Your task to perform on an android device: change timer sound Image 0: 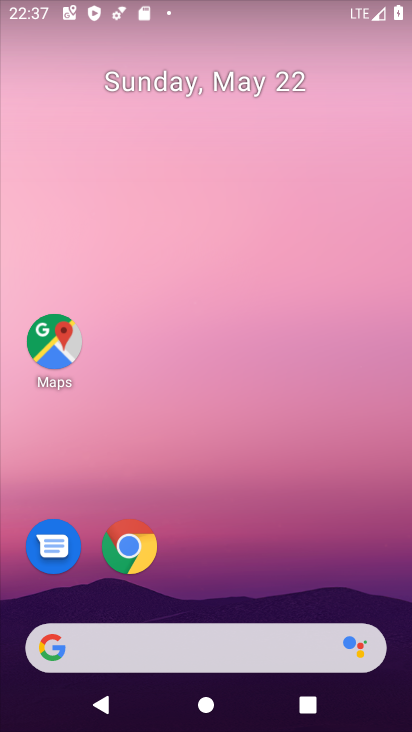
Step 0: drag from (210, 541) to (264, 93)
Your task to perform on an android device: change timer sound Image 1: 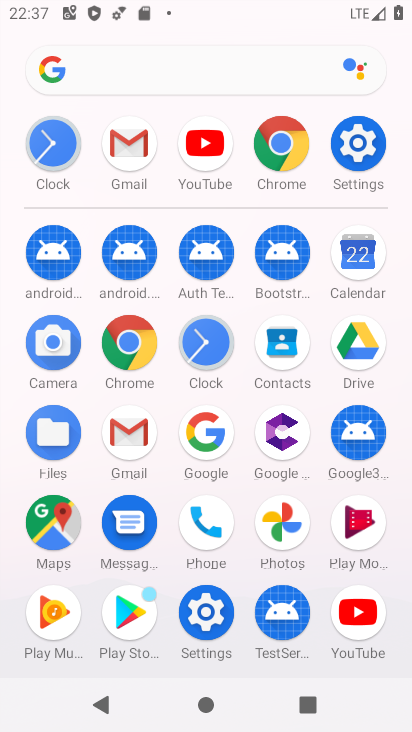
Step 1: click (199, 343)
Your task to perform on an android device: change timer sound Image 2: 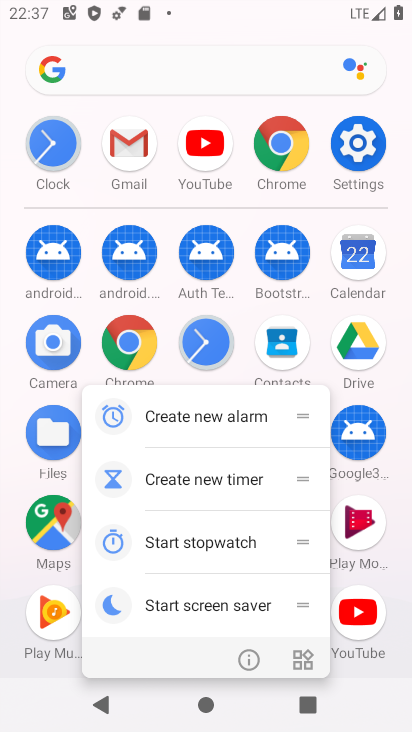
Step 2: drag from (192, 588) to (323, 159)
Your task to perform on an android device: change timer sound Image 3: 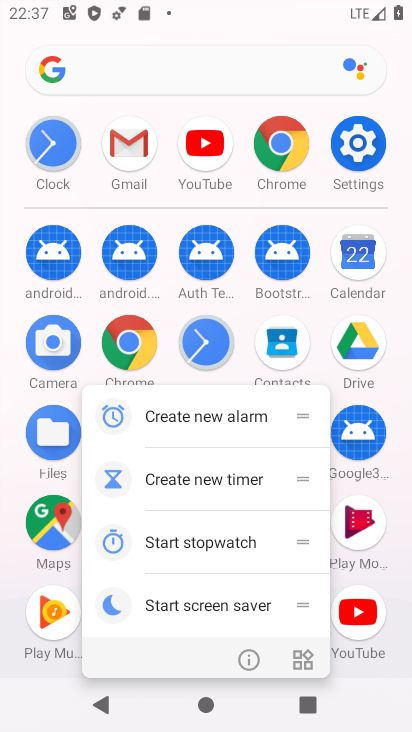
Step 3: click (255, 661)
Your task to perform on an android device: change timer sound Image 4: 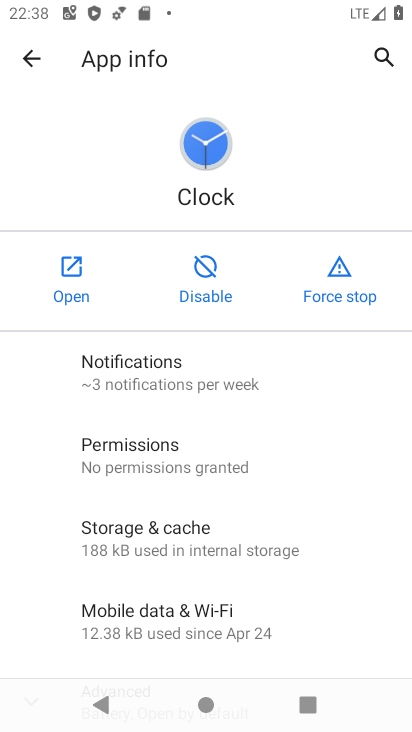
Step 4: click (78, 274)
Your task to perform on an android device: change timer sound Image 5: 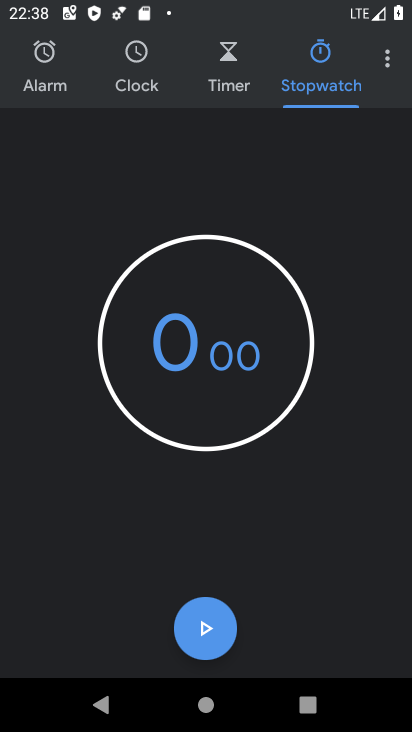
Step 5: click (380, 41)
Your task to perform on an android device: change timer sound Image 6: 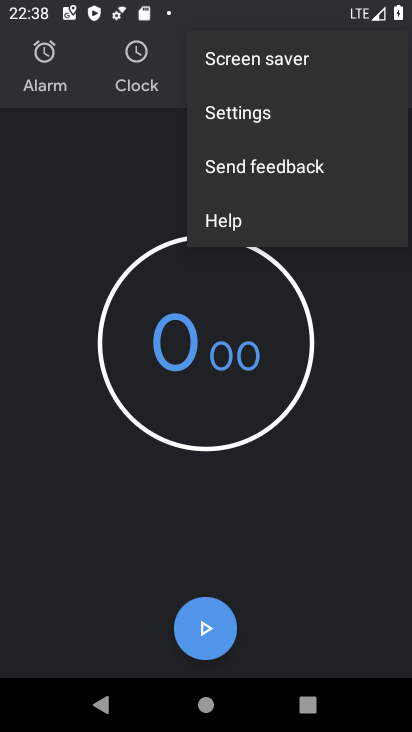
Step 6: click (258, 118)
Your task to perform on an android device: change timer sound Image 7: 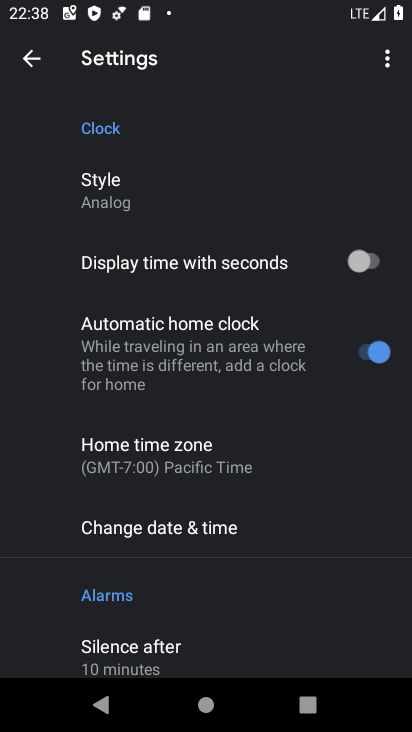
Step 7: drag from (197, 552) to (342, 72)
Your task to perform on an android device: change timer sound Image 8: 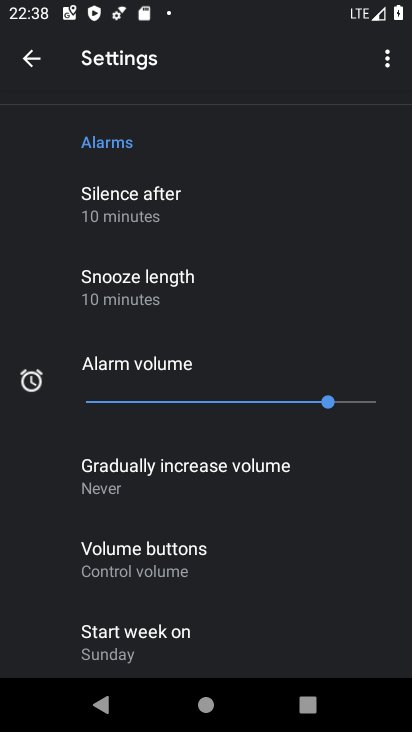
Step 8: drag from (222, 595) to (320, 226)
Your task to perform on an android device: change timer sound Image 9: 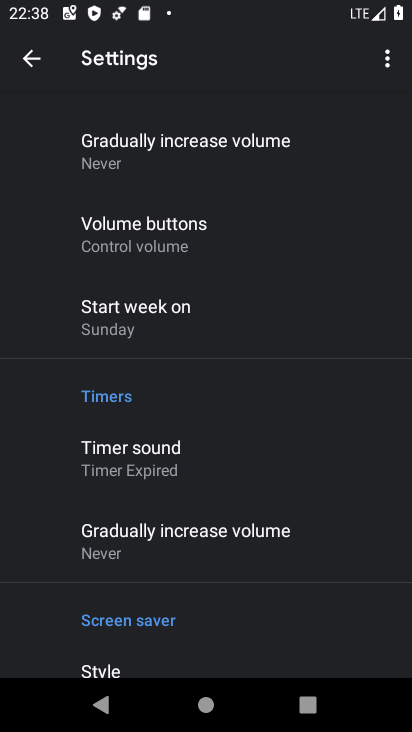
Step 9: click (156, 465)
Your task to perform on an android device: change timer sound Image 10: 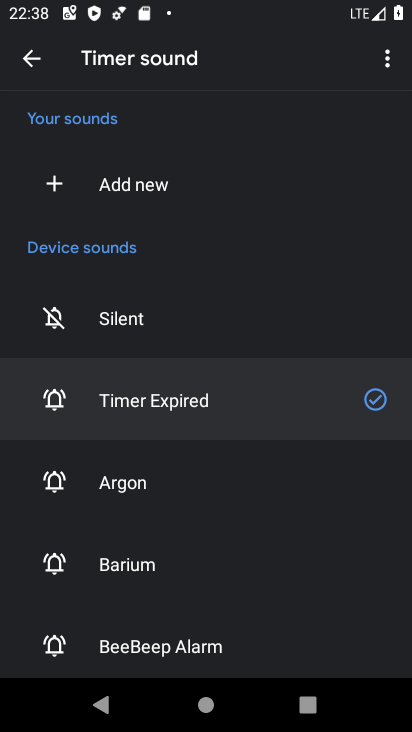
Step 10: click (256, 569)
Your task to perform on an android device: change timer sound Image 11: 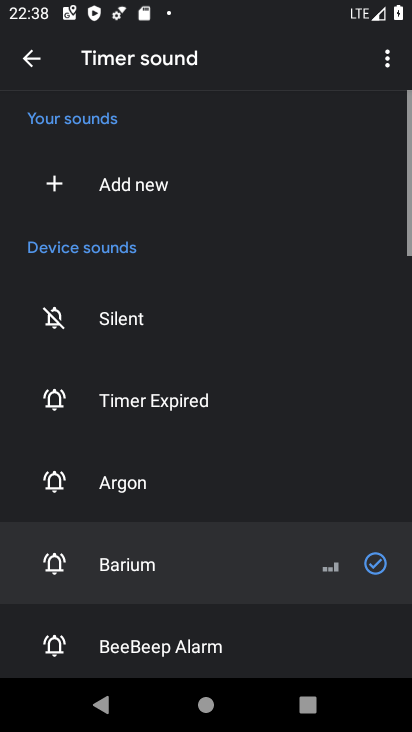
Step 11: task complete